Your task to perform on an android device: allow notifications from all sites in the chrome app Image 0: 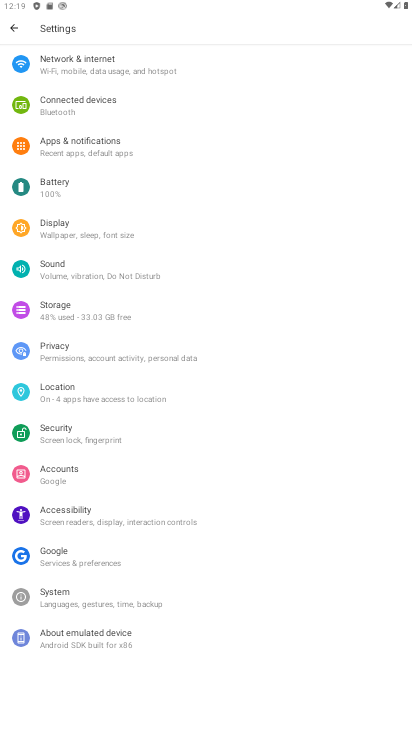
Step 0: press home button
Your task to perform on an android device: allow notifications from all sites in the chrome app Image 1: 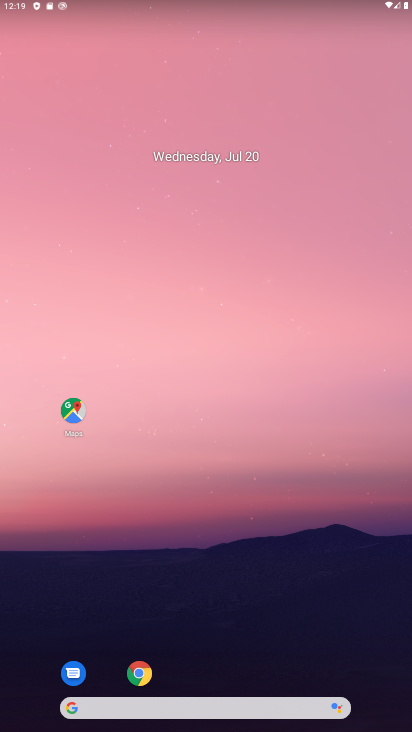
Step 1: drag from (257, 663) to (287, 15)
Your task to perform on an android device: allow notifications from all sites in the chrome app Image 2: 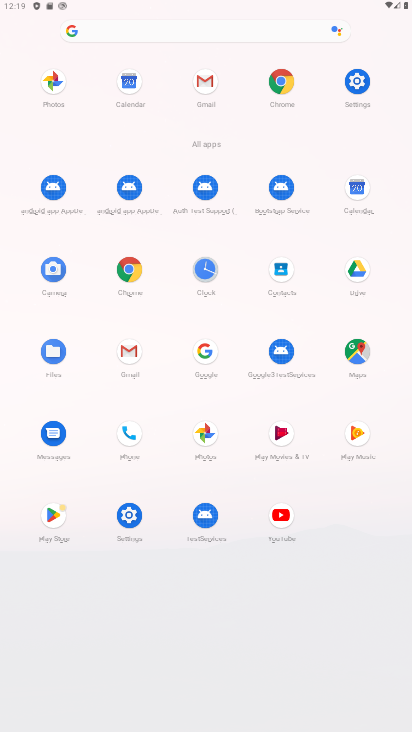
Step 2: click (135, 275)
Your task to perform on an android device: allow notifications from all sites in the chrome app Image 3: 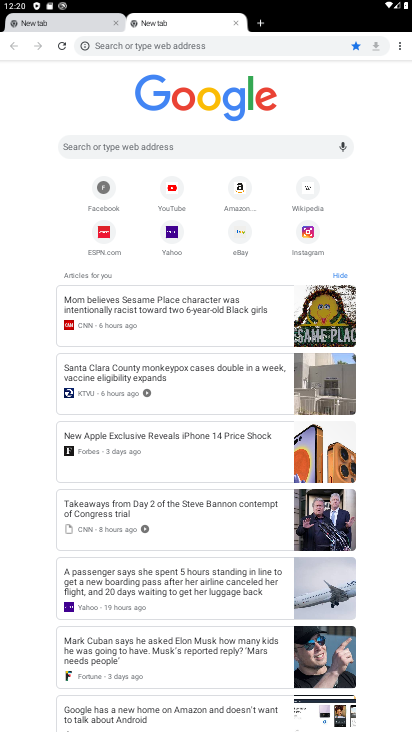
Step 3: click (398, 47)
Your task to perform on an android device: allow notifications from all sites in the chrome app Image 4: 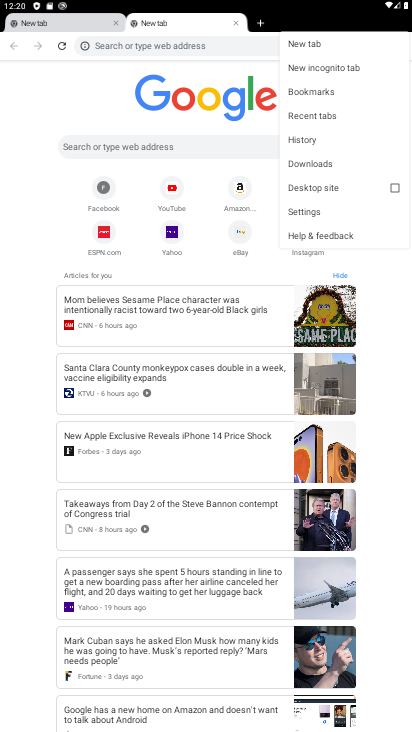
Step 4: click (315, 212)
Your task to perform on an android device: allow notifications from all sites in the chrome app Image 5: 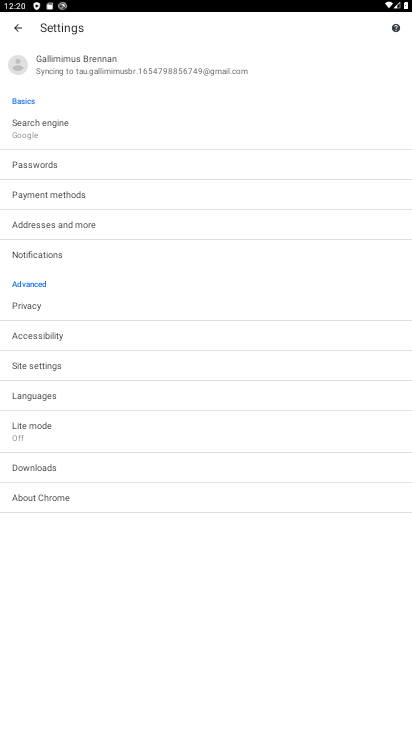
Step 5: click (40, 257)
Your task to perform on an android device: allow notifications from all sites in the chrome app Image 6: 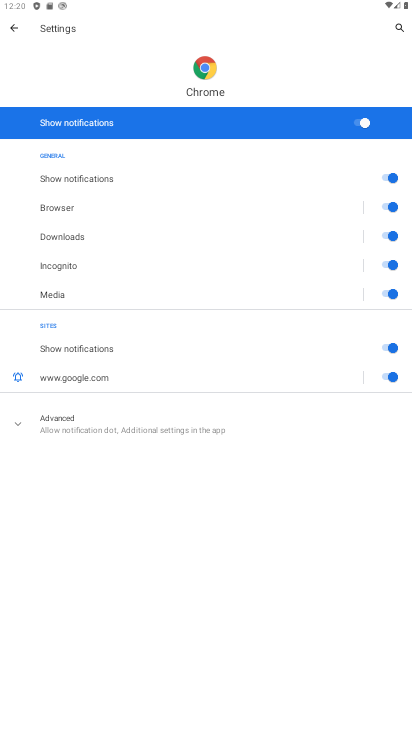
Step 6: task complete